Your task to perform on an android device: find photos in the google photos app Image 0: 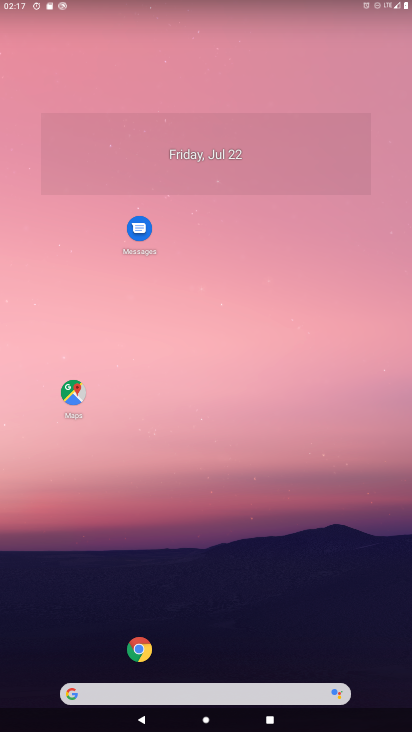
Step 0: drag from (51, 668) to (172, 150)
Your task to perform on an android device: find photos in the google photos app Image 1: 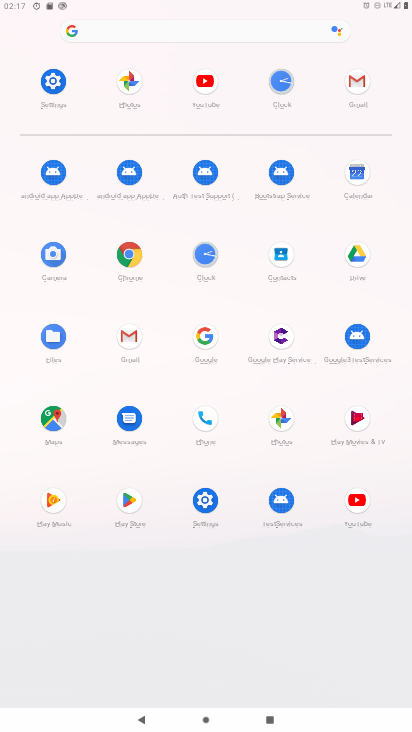
Step 1: click (275, 415)
Your task to perform on an android device: find photos in the google photos app Image 2: 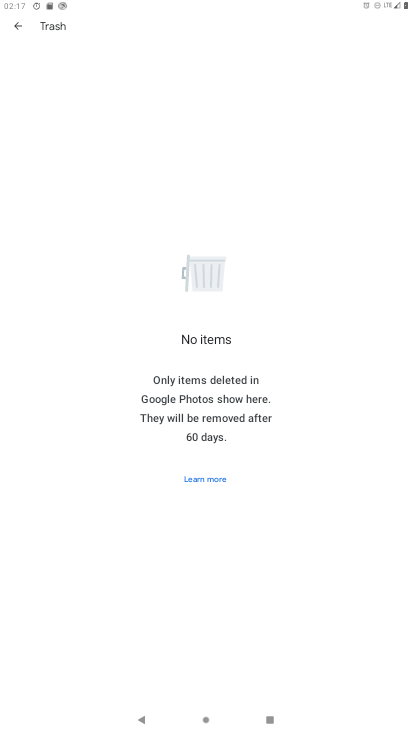
Step 2: click (22, 29)
Your task to perform on an android device: find photos in the google photos app Image 3: 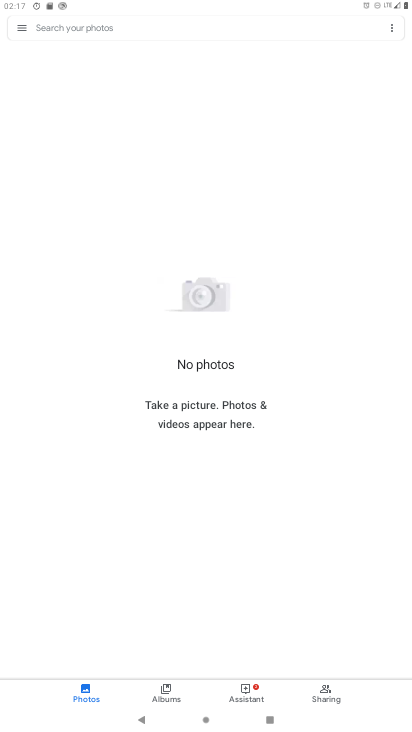
Step 3: click (22, 30)
Your task to perform on an android device: find photos in the google photos app Image 4: 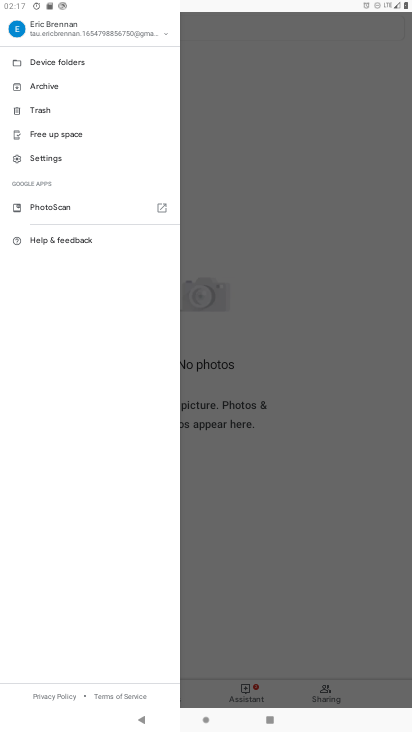
Step 4: click (236, 273)
Your task to perform on an android device: find photos in the google photos app Image 5: 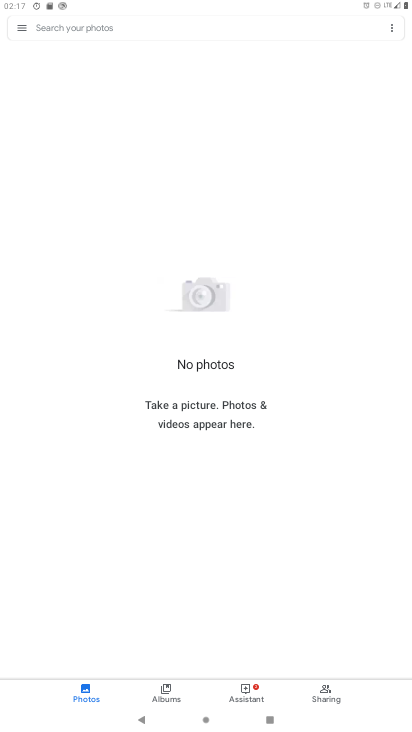
Step 5: task complete